Your task to perform on an android device: turn off improve location accuracy Image 0: 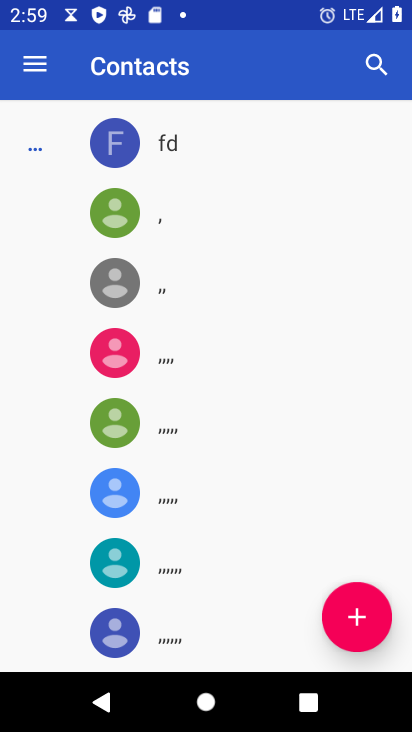
Step 0: press home button
Your task to perform on an android device: turn off improve location accuracy Image 1: 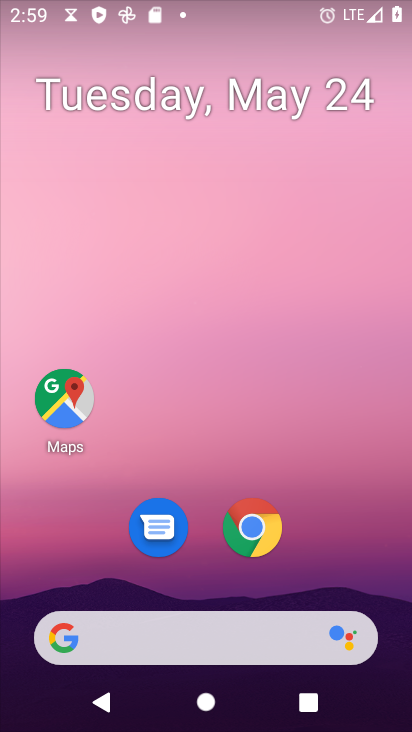
Step 1: drag from (154, 639) to (323, 59)
Your task to perform on an android device: turn off improve location accuracy Image 2: 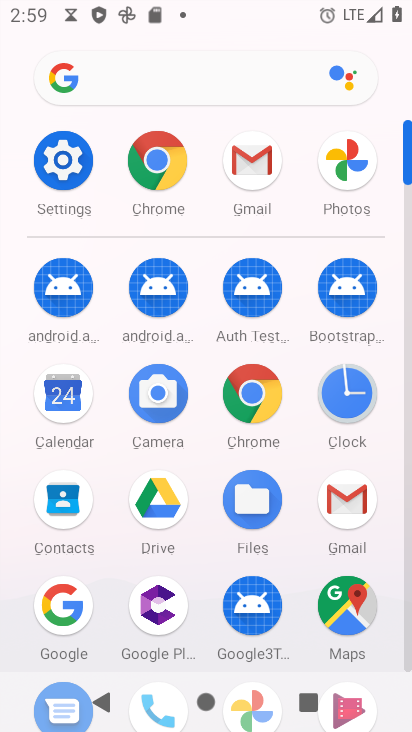
Step 2: click (54, 168)
Your task to perform on an android device: turn off improve location accuracy Image 3: 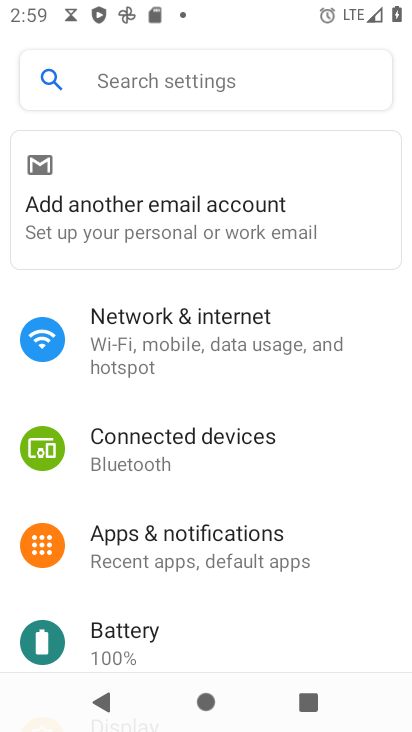
Step 3: drag from (214, 594) to (346, 147)
Your task to perform on an android device: turn off improve location accuracy Image 4: 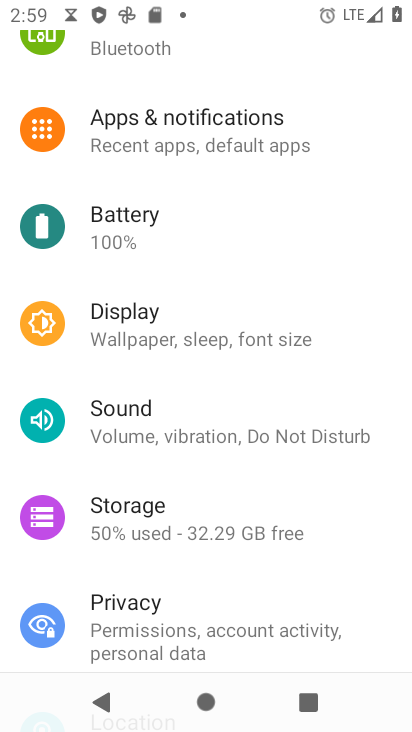
Step 4: drag from (169, 563) to (281, 167)
Your task to perform on an android device: turn off improve location accuracy Image 5: 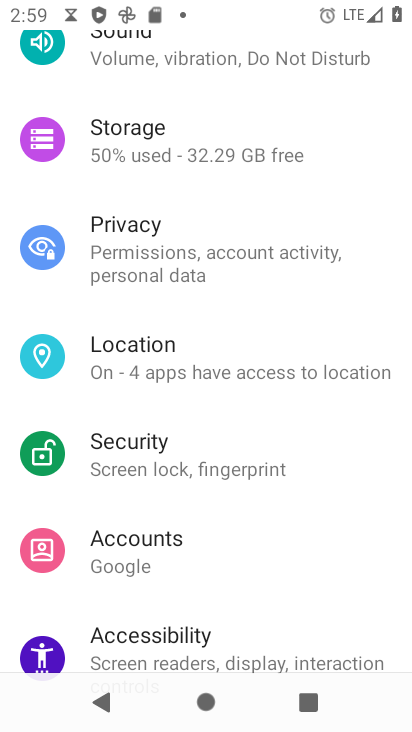
Step 5: click (149, 361)
Your task to perform on an android device: turn off improve location accuracy Image 6: 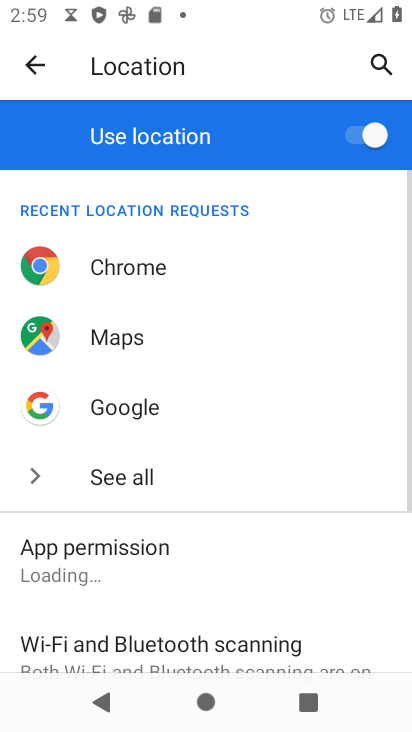
Step 6: drag from (191, 595) to (321, 125)
Your task to perform on an android device: turn off improve location accuracy Image 7: 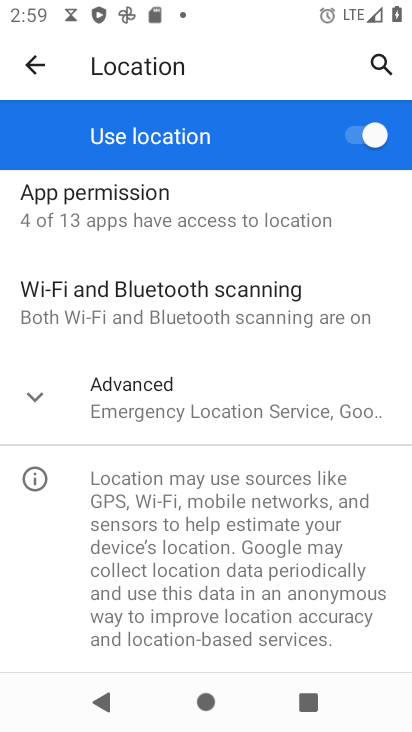
Step 7: click (167, 417)
Your task to perform on an android device: turn off improve location accuracy Image 8: 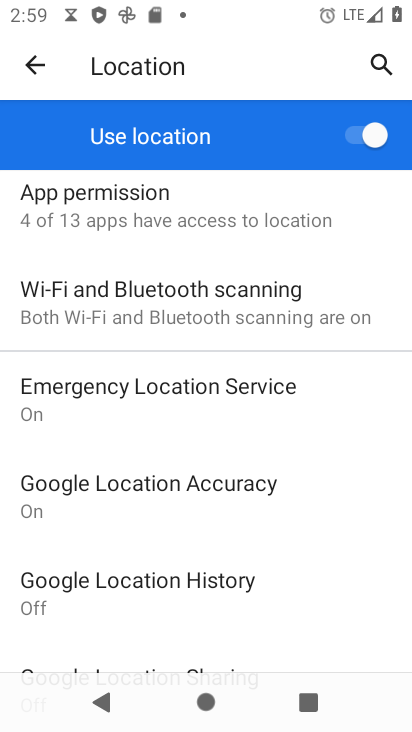
Step 8: click (136, 496)
Your task to perform on an android device: turn off improve location accuracy Image 9: 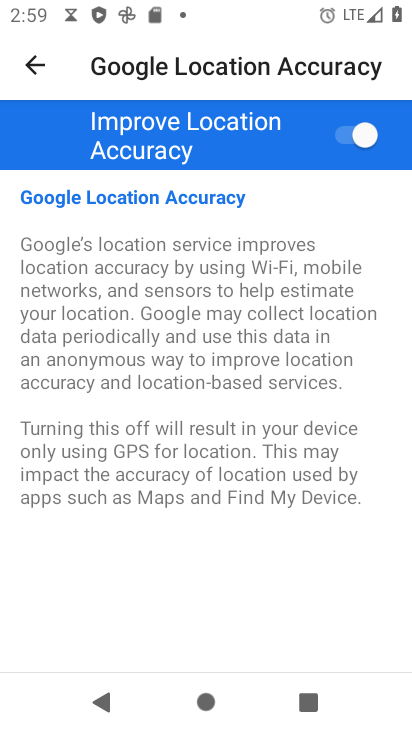
Step 9: click (346, 136)
Your task to perform on an android device: turn off improve location accuracy Image 10: 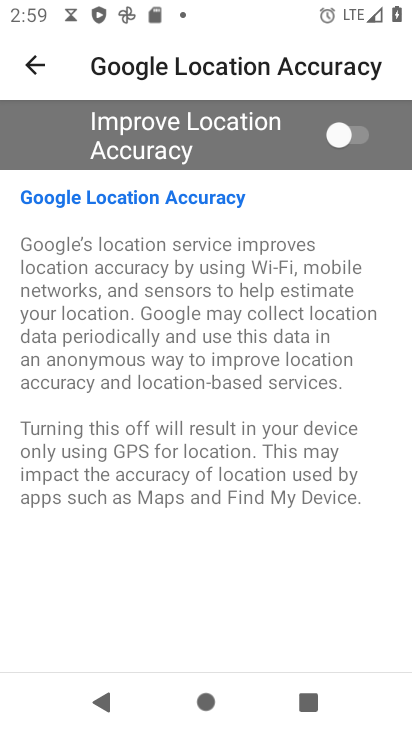
Step 10: task complete